Your task to perform on an android device: Go to ESPN.com Image 0: 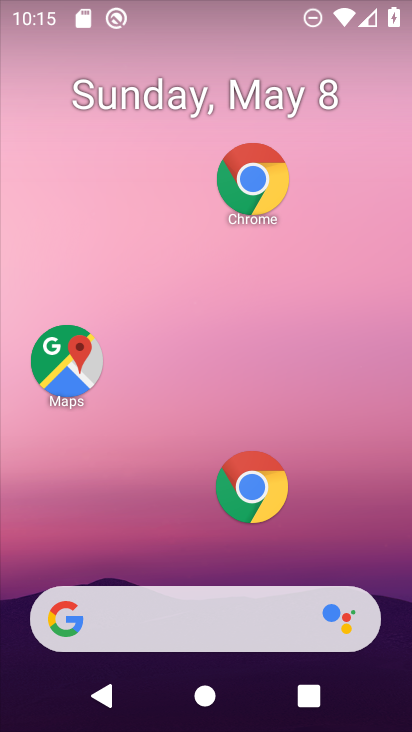
Step 0: click (200, 609)
Your task to perform on an android device: Go to ESPN.com Image 1: 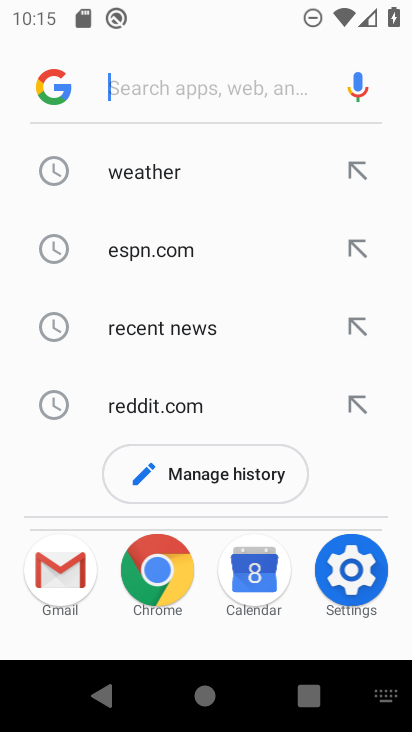
Step 1: click (152, 242)
Your task to perform on an android device: Go to ESPN.com Image 2: 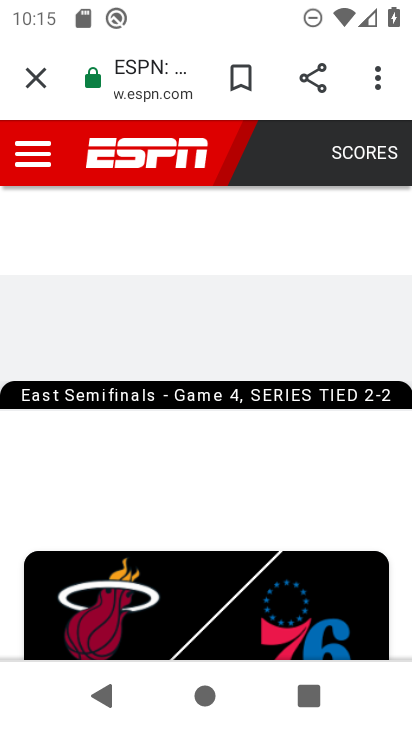
Step 2: task complete